Your task to perform on an android device: Go to Yahoo.com Image 0: 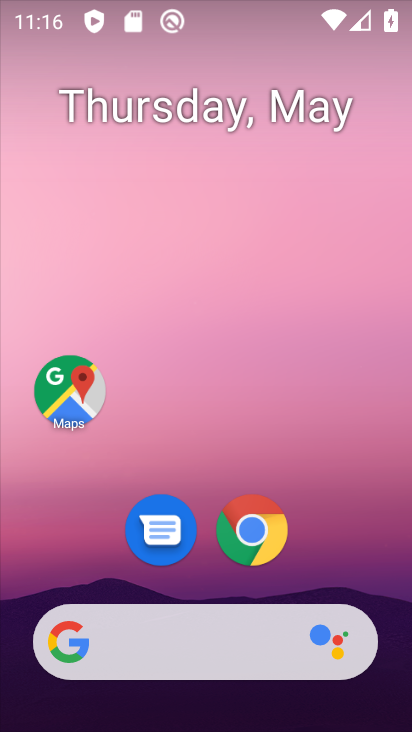
Step 0: click (202, 653)
Your task to perform on an android device: Go to Yahoo.com Image 1: 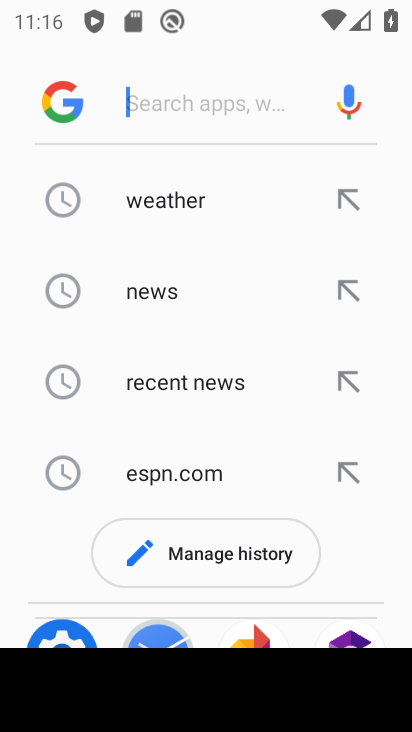
Step 1: type "yahoo.com"
Your task to perform on an android device: Go to Yahoo.com Image 2: 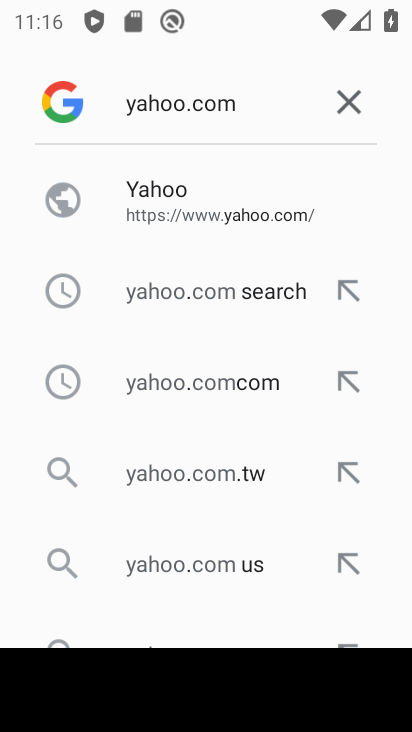
Step 2: click (189, 197)
Your task to perform on an android device: Go to Yahoo.com Image 3: 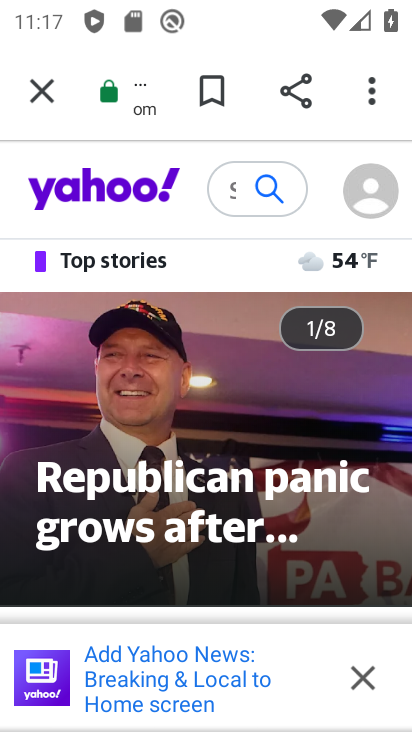
Step 3: task complete